Your task to perform on an android device: Go to wifi settings Image 0: 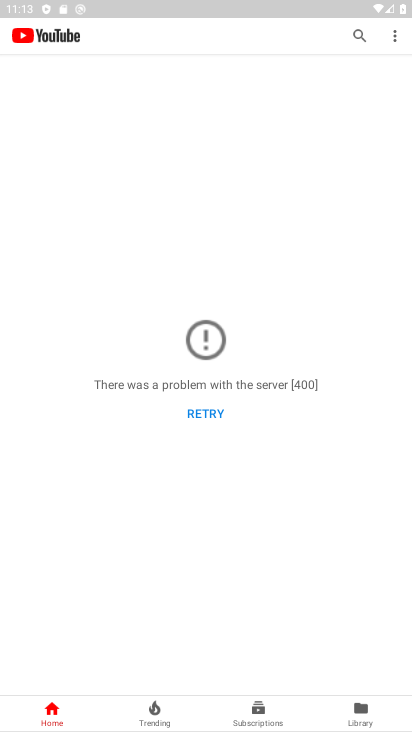
Step 0: press back button
Your task to perform on an android device: Go to wifi settings Image 1: 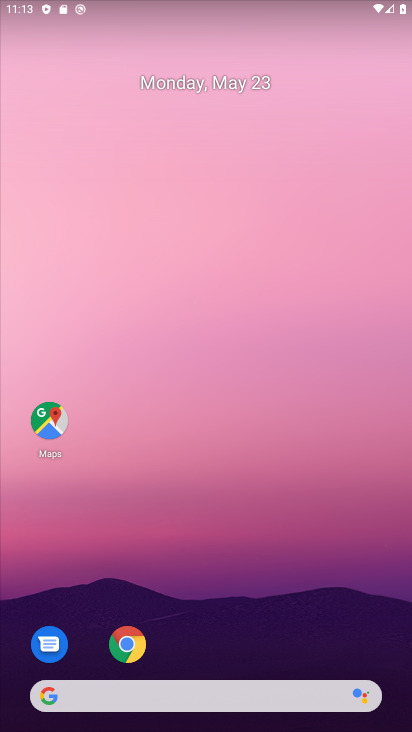
Step 1: drag from (227, 368) to (302, 156)
Your task to perform on an android device: Go to wifi settings Image 2: 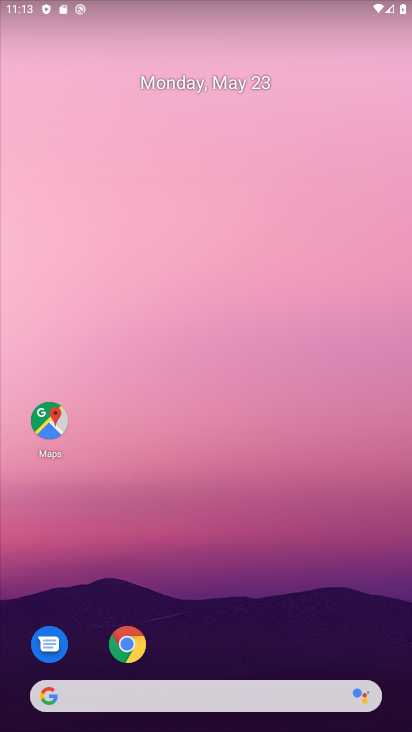
Step 2: drag from (285, 657) to (263, 85)
Your task to perform on an android device: Go to wifi settings Image 3: 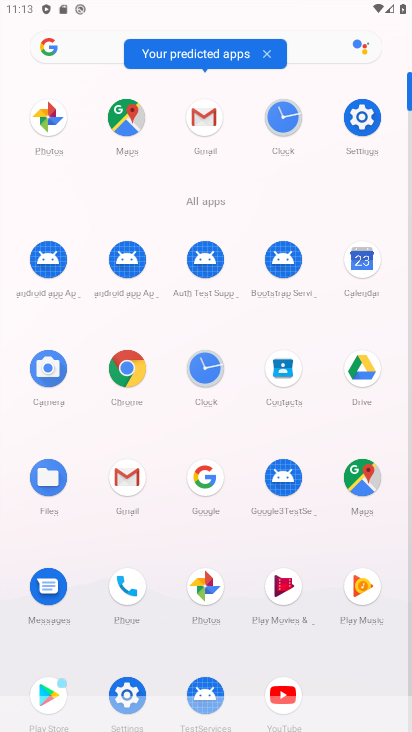
Step 3: click (356, 144)
Your task to perform on an android device: Go to wifi settings Image 4: 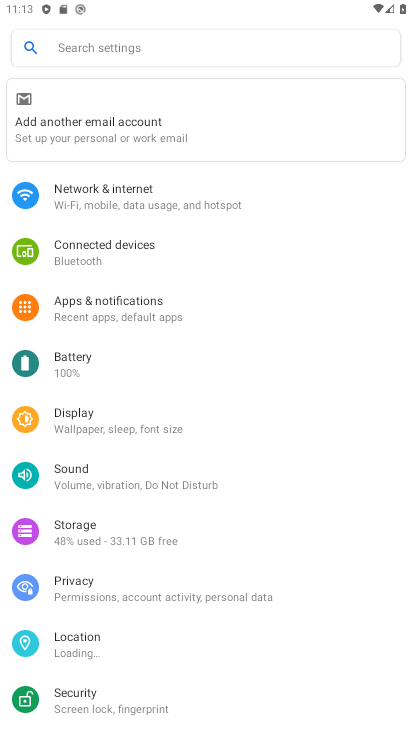
Step 4: click (167, 187)
Your task to perform on an android device: Go to wifi settings Image 5: 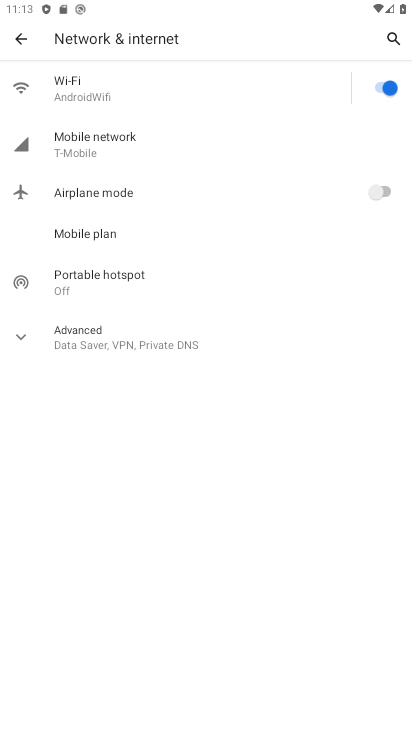
Step 5: click (227, 96)
Your task to perform on an android device: Go to wifi settings Image 6: 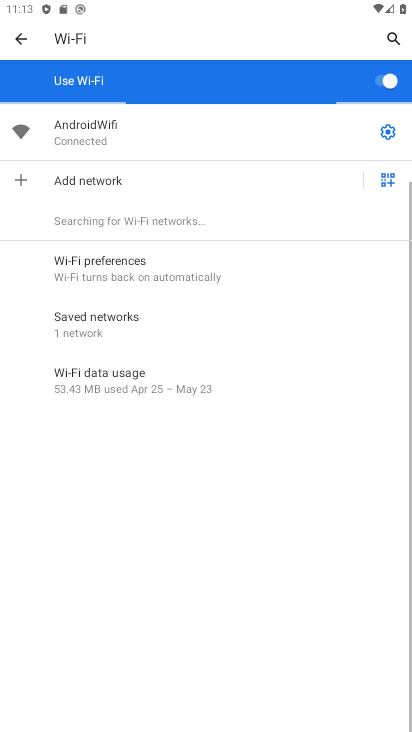
Step 6: click (382, 130)
Your task to perform on an android device: Go to wifi settings Image 7: 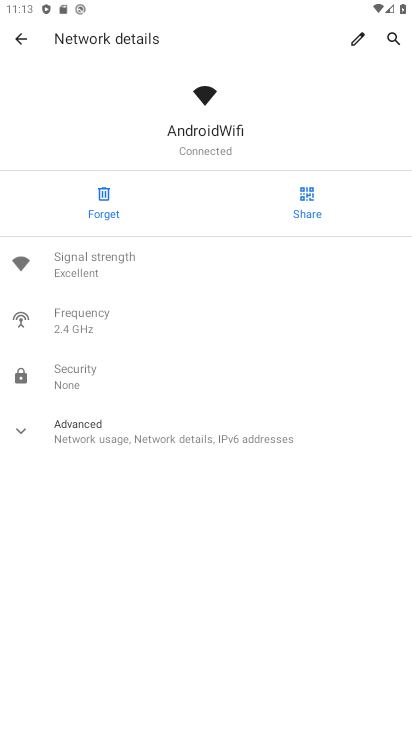
Step 7: task complete